Your task to perform on an android device: open app "Microsoft Excel" (install if not already installed) and go to login screen Image 0: 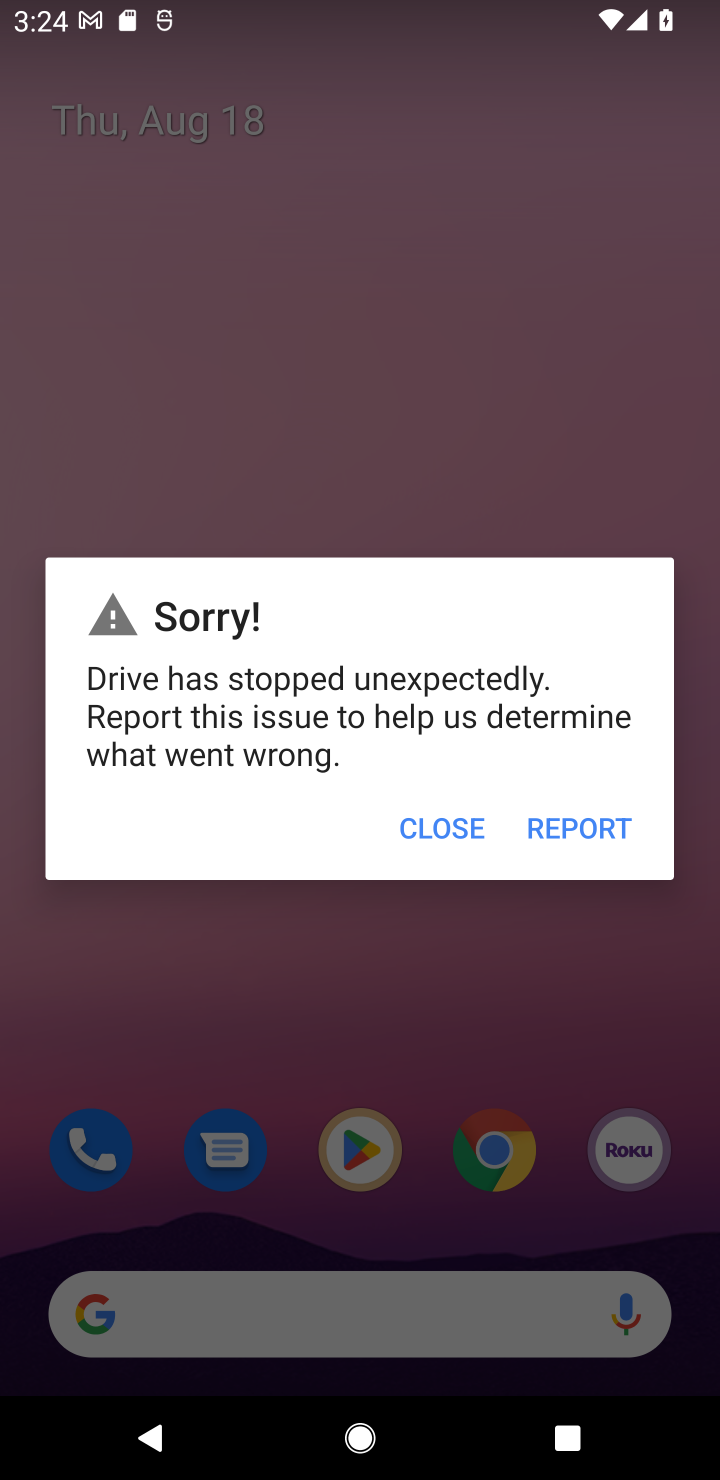
Step 0: press home button
Your task to perform on an android device: open app "Microsoft Excel" (install if not already installed) and go to login screen Image 1: 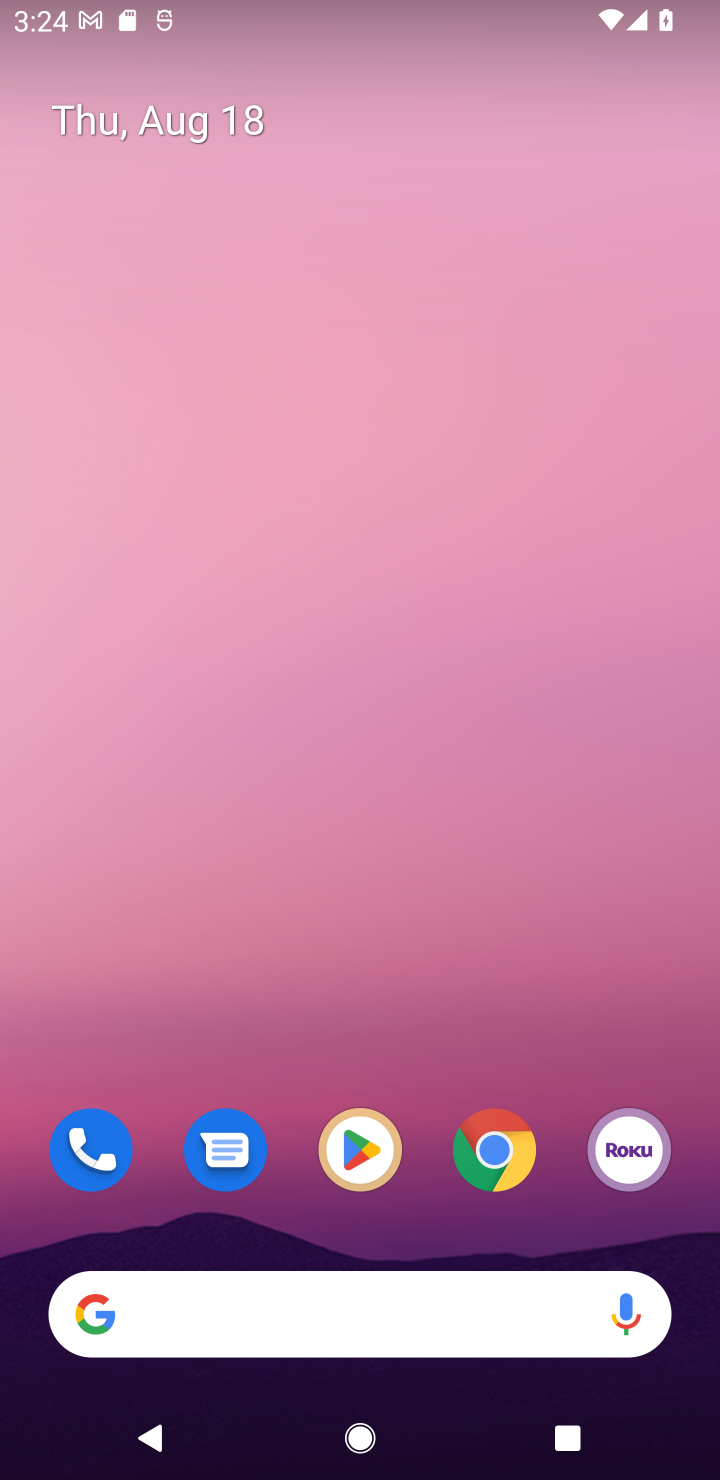
Step 1: click (366, 1152)
Your task to perform on an android device: open app "Microsoft Excel" (install if not already installed) and go to login screen Image 2: 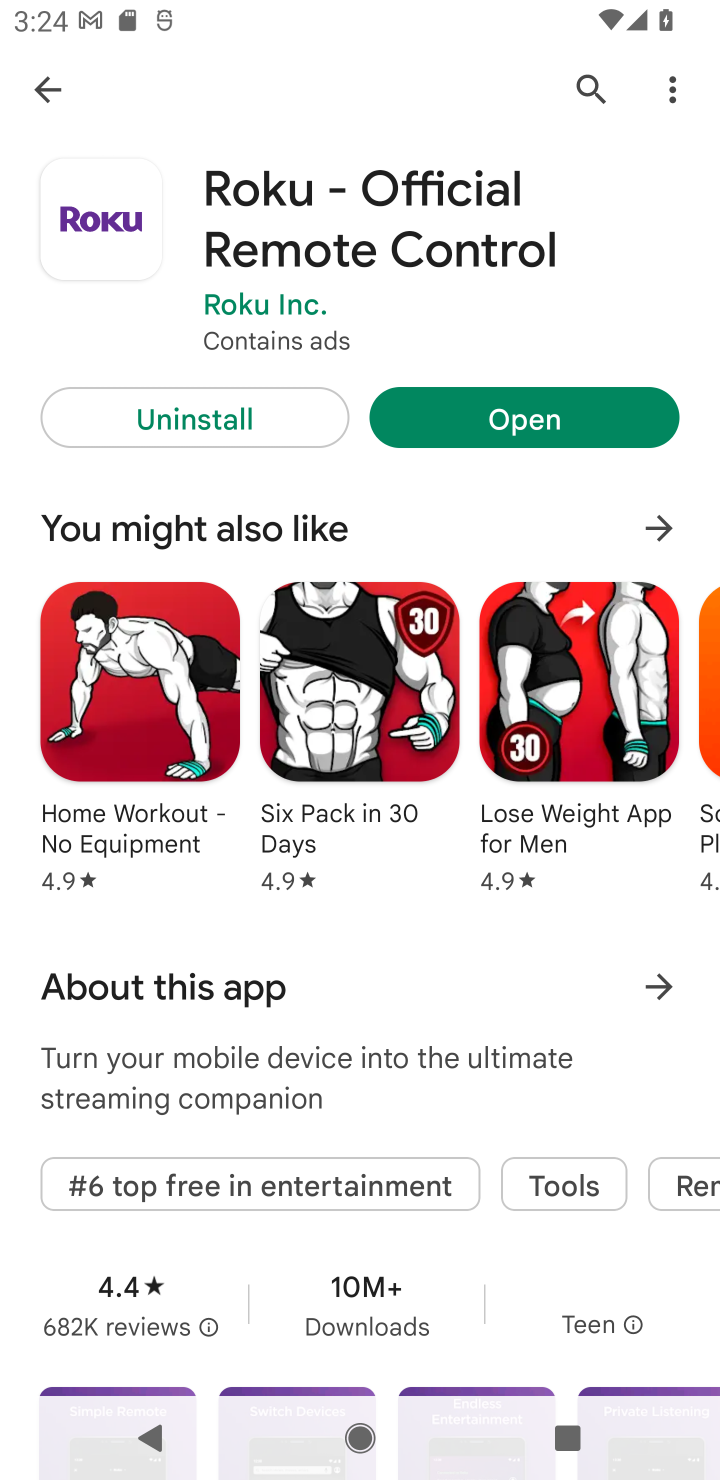
Step 2: click (578, 90)
Your task to perform on an android device: open app "Microsoft Excel" (install if not already installed) and go to login screen Image 3: 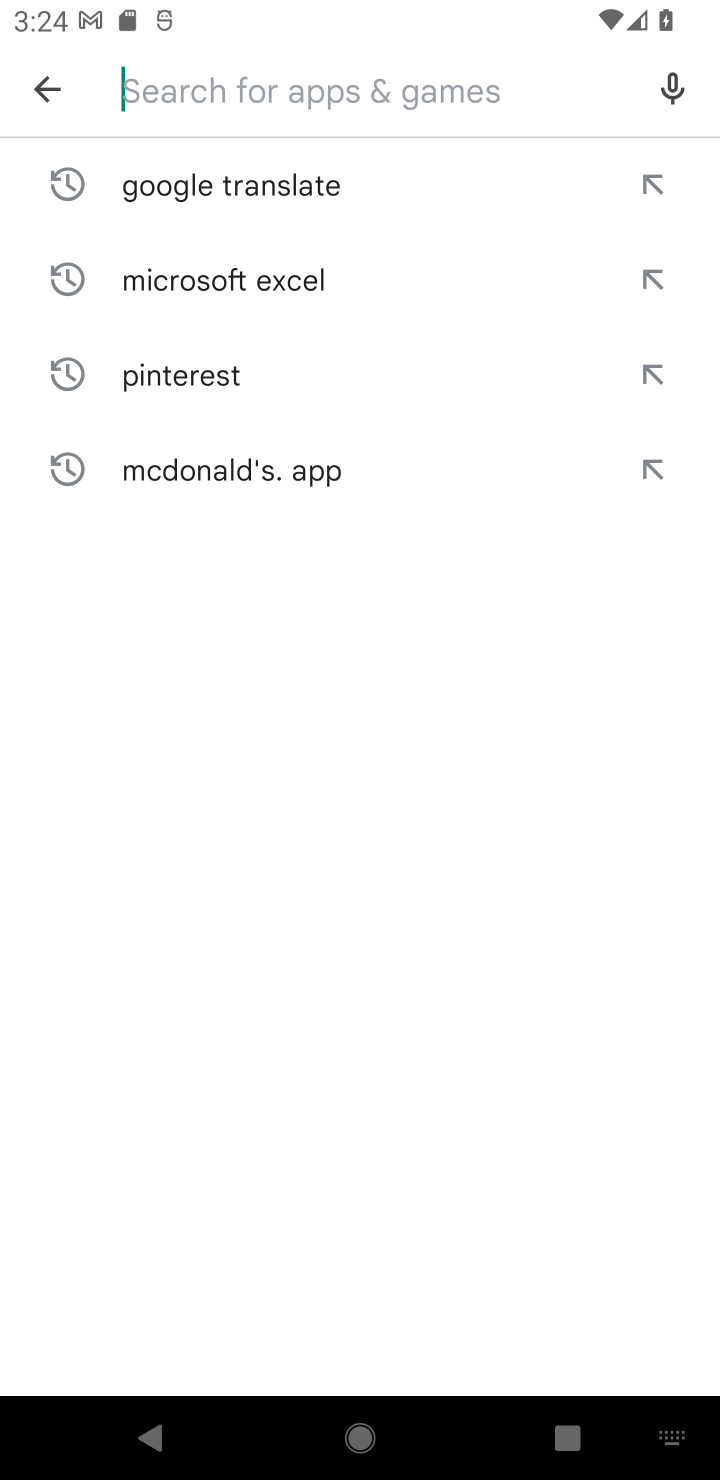
Step 3: type "Microsoft Excel"
Your task to perform on an android device: open app "Microsoft Excel" (install if not already installed) and go to login screen Image 4: 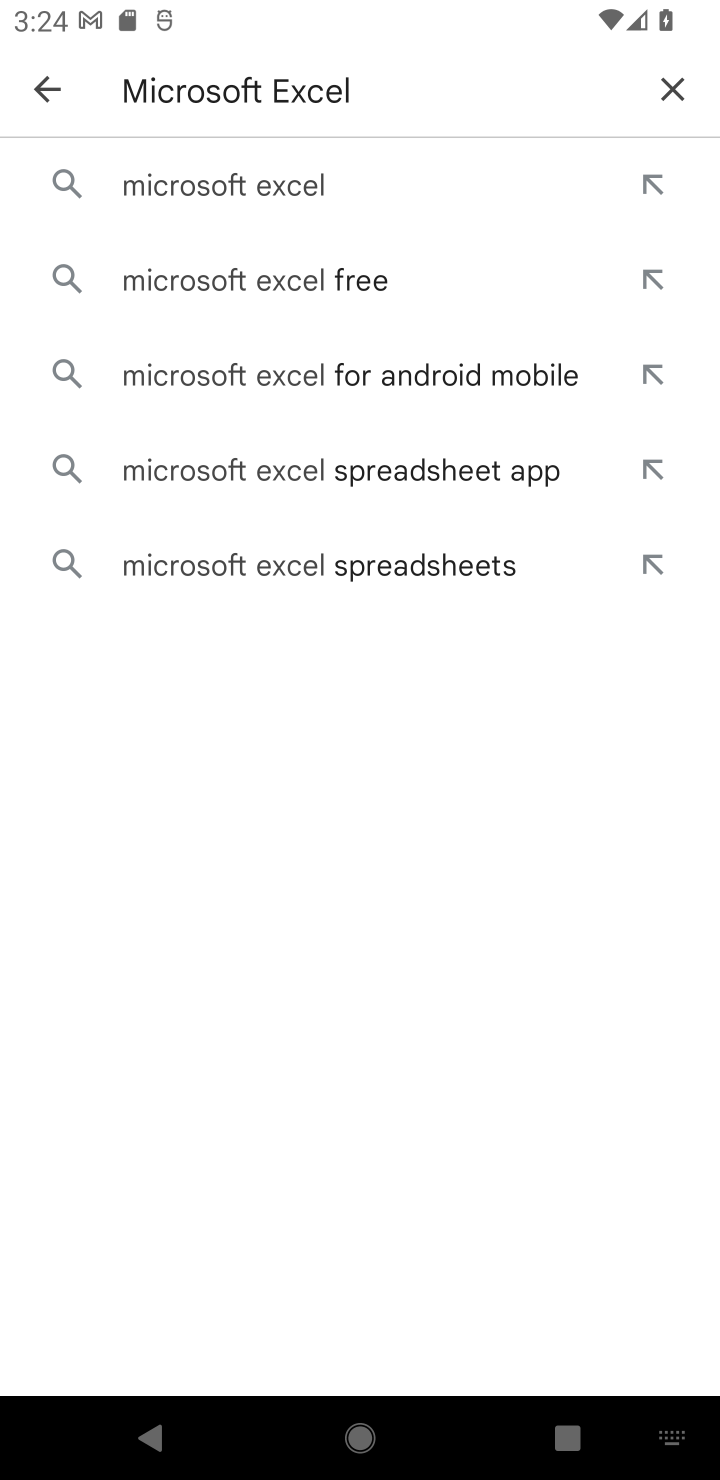
Step 4: click (227, 177)
Your task to perform on an android device: open app "Microsoft Excel" (install if not already installed) and go to login screen Image 5: 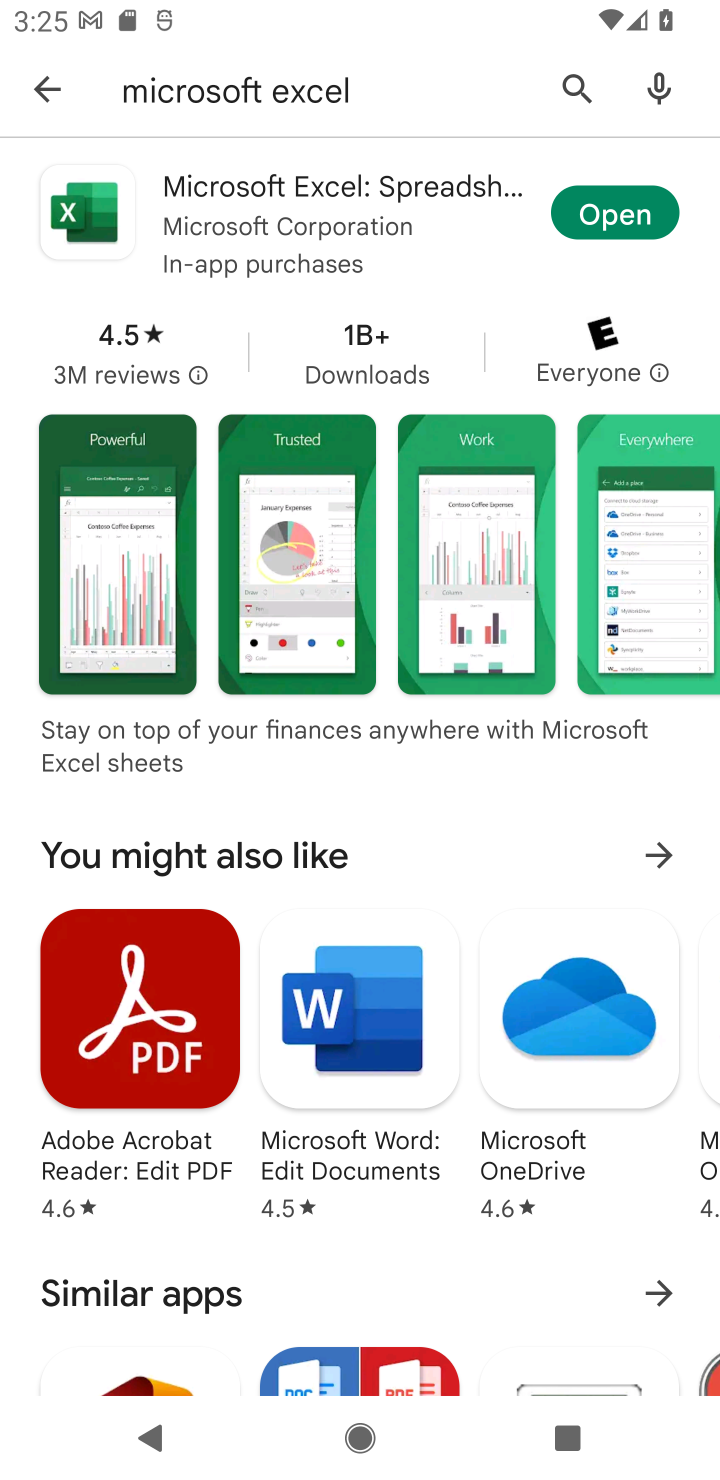
Step 5: click (614, 215)
Your task to perform on an android device: open app "Microsoft Excel" (install if not already installed) and go to login screen Image 6: 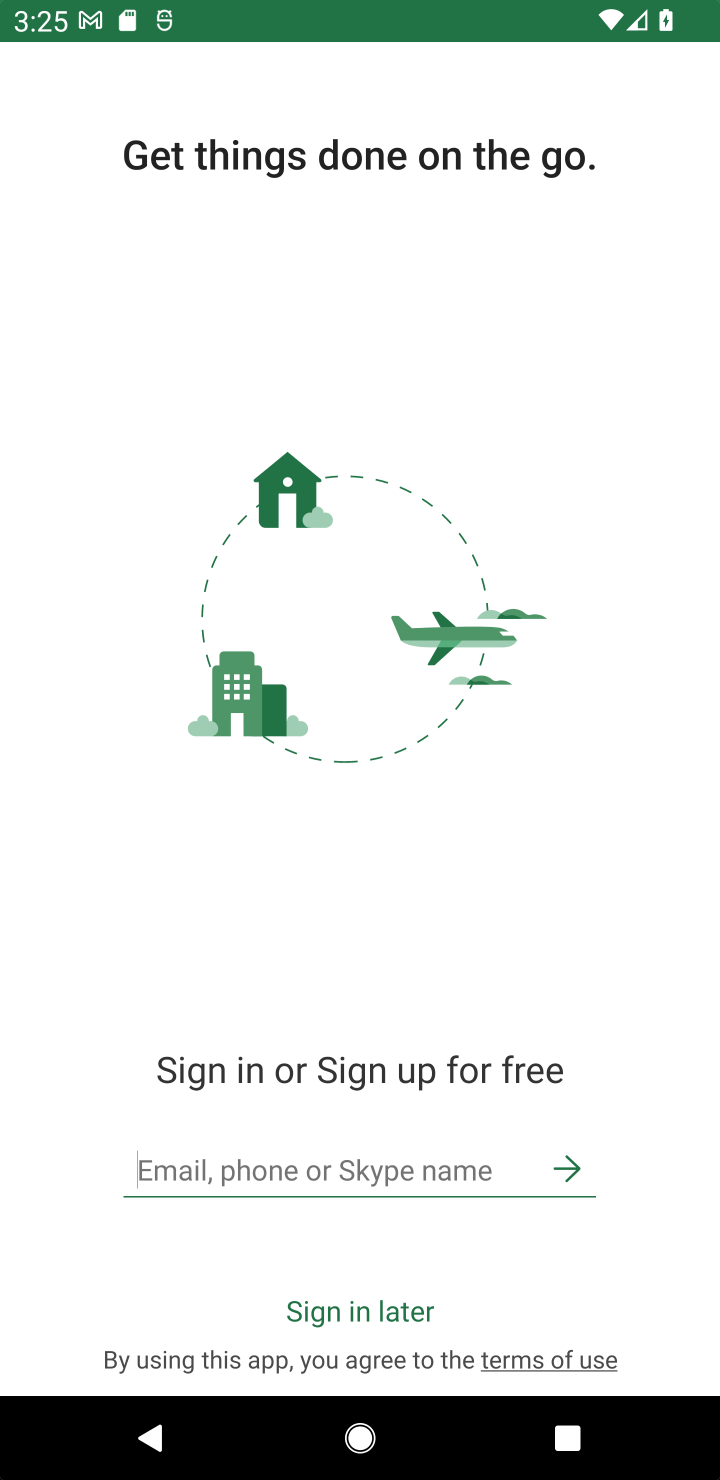
Step 6: click (348, 1182)
Your task to perform on an android device: open app "Microsoft Excel" (install if not already installed) and go to login screen Image 7: 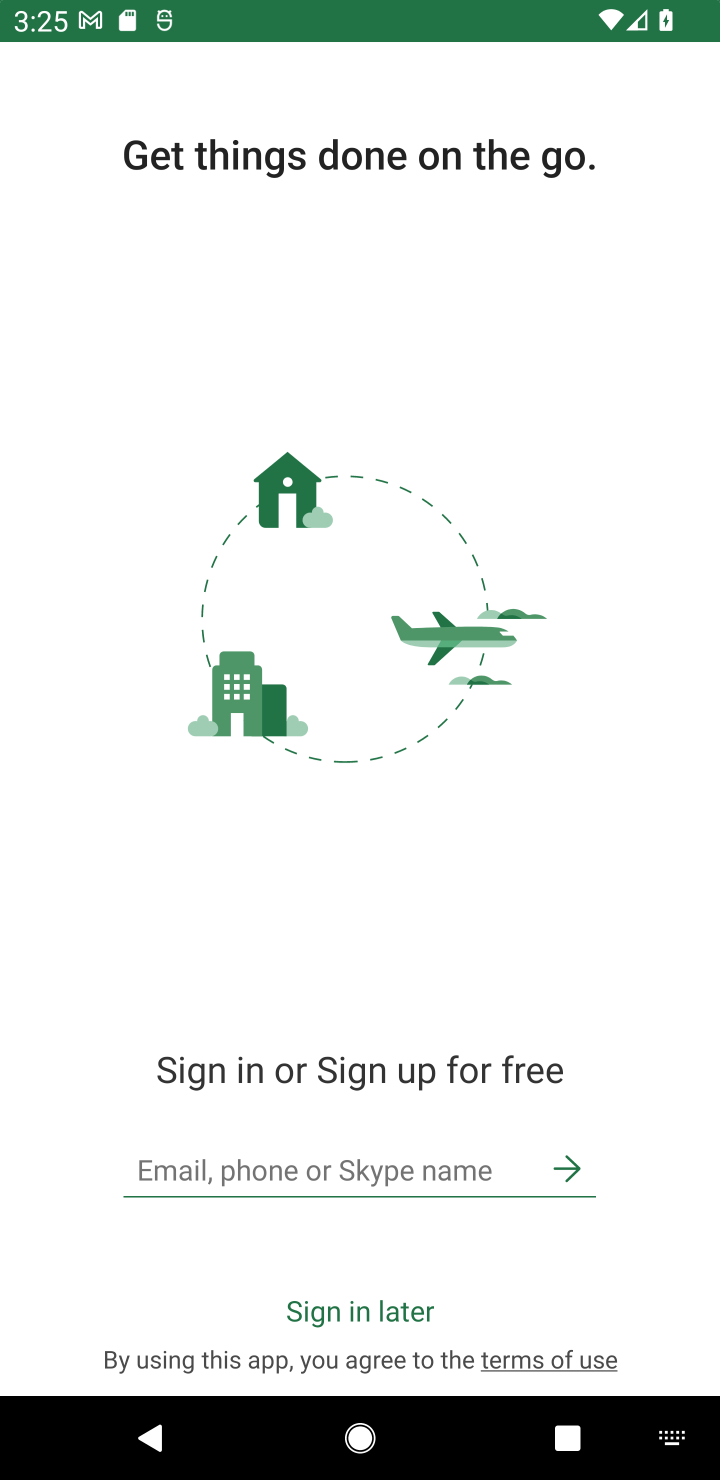
Step 7: task complete